Your task to perform on an android device: Search for Italian restaurants on Maps Image 0: 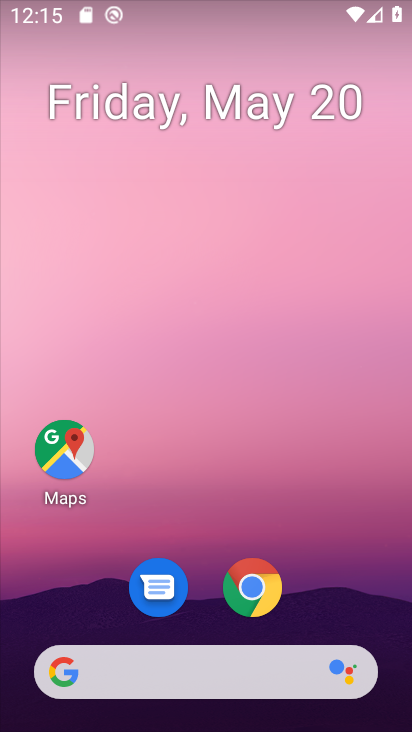
Step 0: drag from (373, 600) to (369, 188)
Your task to perform on an android device: Search for Italian restaurants on Maps Image 1: 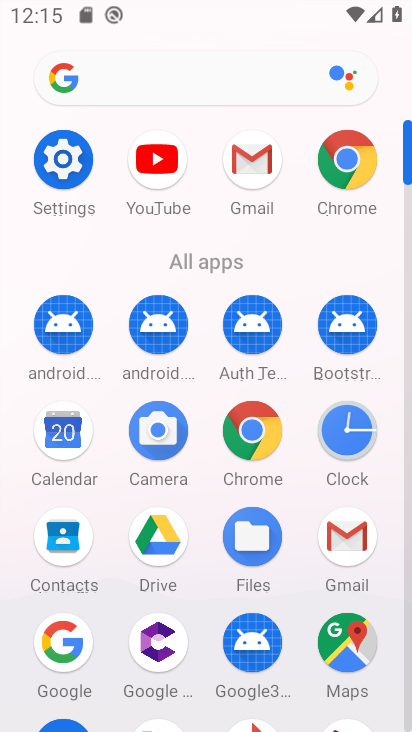
Step 1: click (352, 639)
Your task to perform on an android device: Search for Italian restaurants on Maps Image 2: 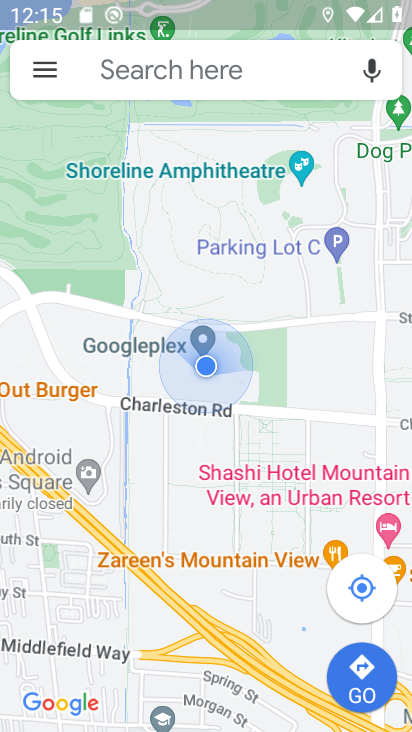
Step 2: click (282, 83)
Your task to perform on an android device: Search for Italian restaurants on Maps Image 3: 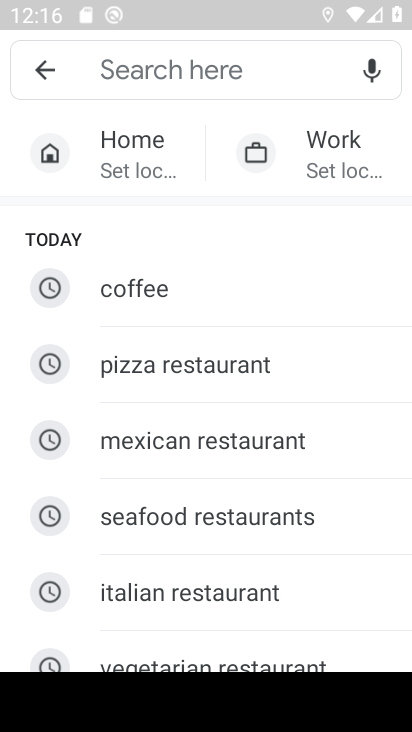
Step 3: type "italian restaurants"
Your task to perform on an android device: Search for Italian restaurants on Maps Image 4: 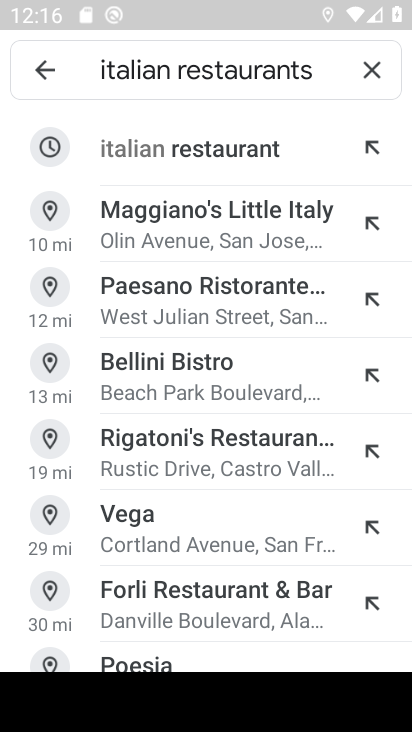
Step 4: click (307, 166)
Your task to perform on an android device: Search for Italian restaurants on Maps Image 5: 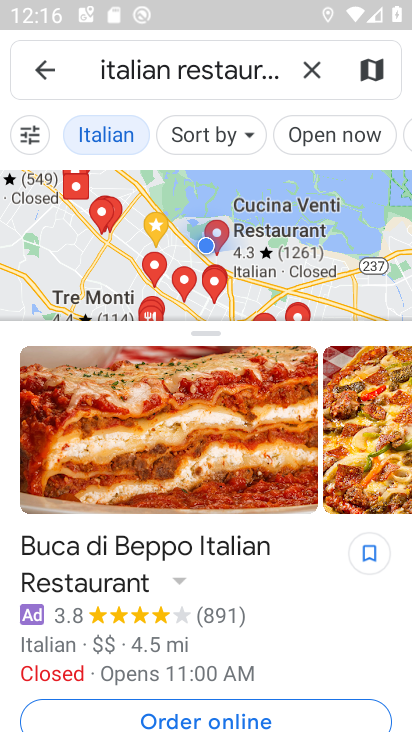
Step 5: task complete